Your task to perform on an android device: turn smart compose on in the gmail app Image 0: 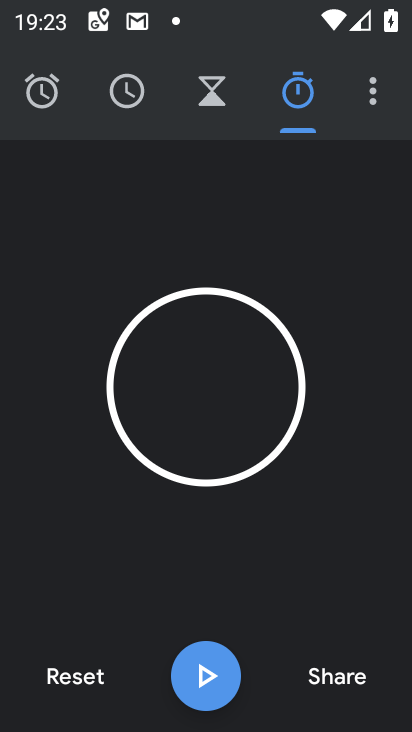
Step 0: press home button
Your task to perform on an android device: turn smart compose on in the gmail app Image 1: 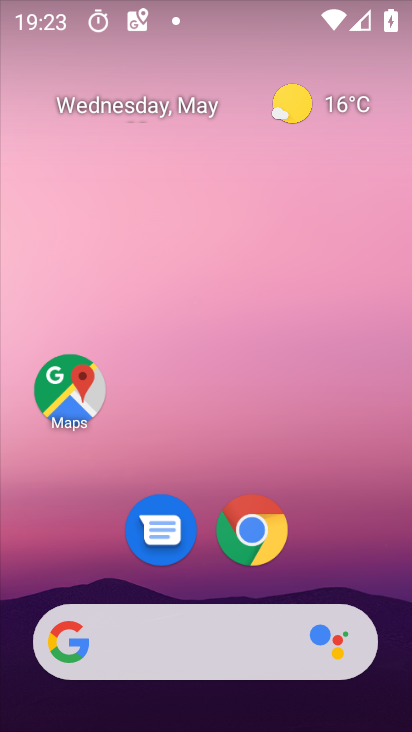
Step 1: drag from (142, 582) to (198, 263)
Your task to perform on an android device: turn smart compose on in the gmail app Image 2: 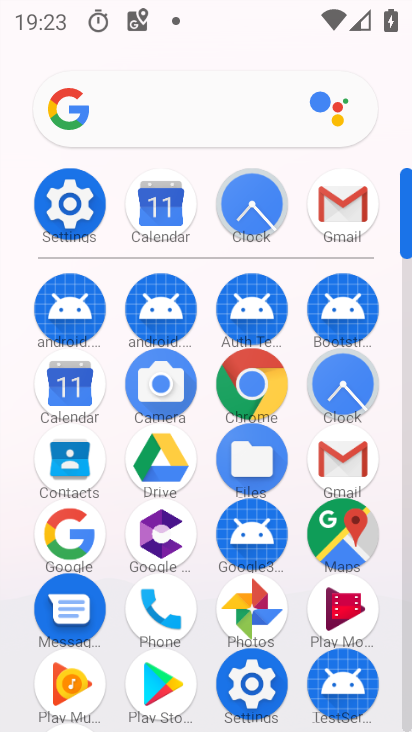
Step 2: click (344, 206)
Your task to perform on an android device: turn smart compose on in the gmail app Image 3: 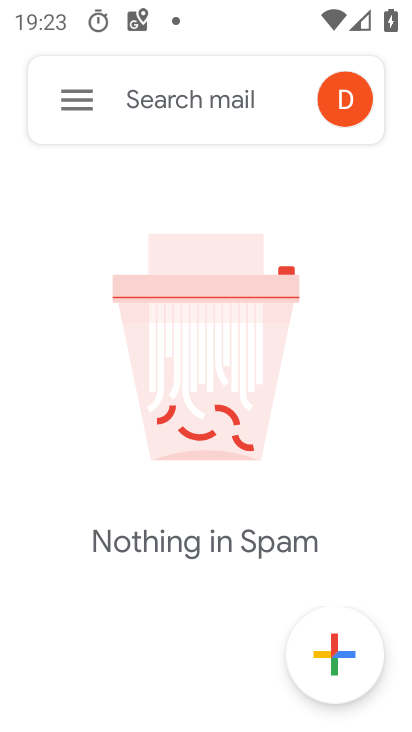
Step 3: click (83, 103)
Your task to perform on an android device: turn smart compose on in the gmail app Image 4: 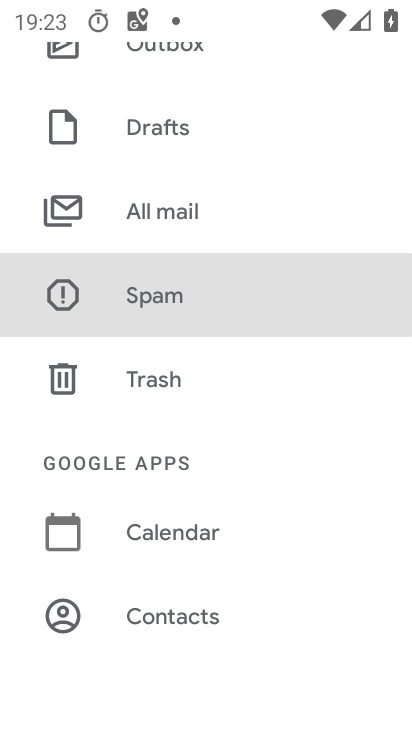
Step 4: drag from (230, 577) to (264, 236)
Your task to perform on an android device: turn smart compose on in the gmail app Image 5: 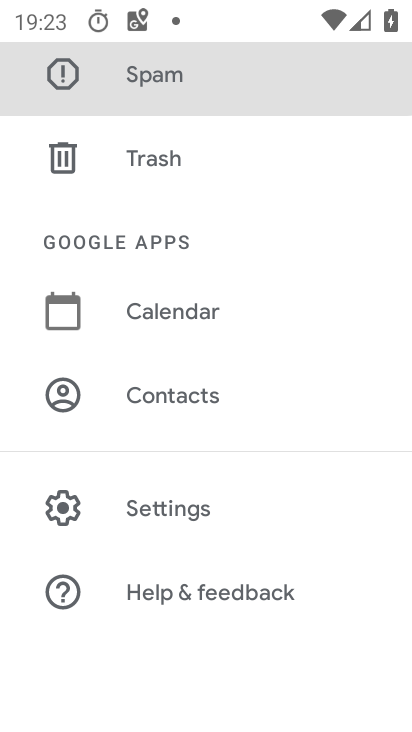
Step 5: click (156, 512)
Your task to perform on an android device: turn smart compose on in the gmail app Image 6: 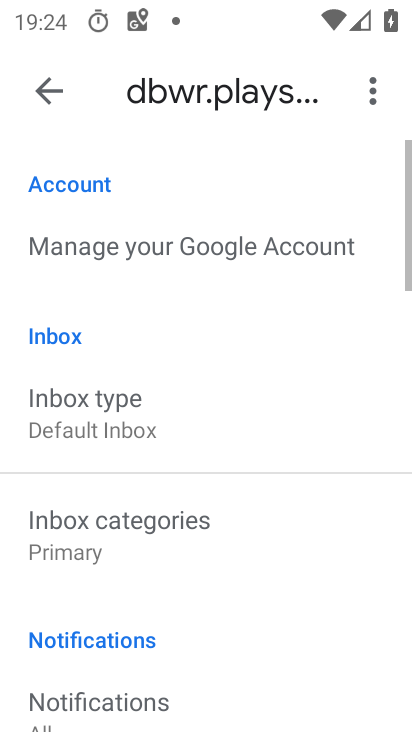
Step 6: task complete